Your task to perform on an android device: toggle translation in the chrome app Image 0: 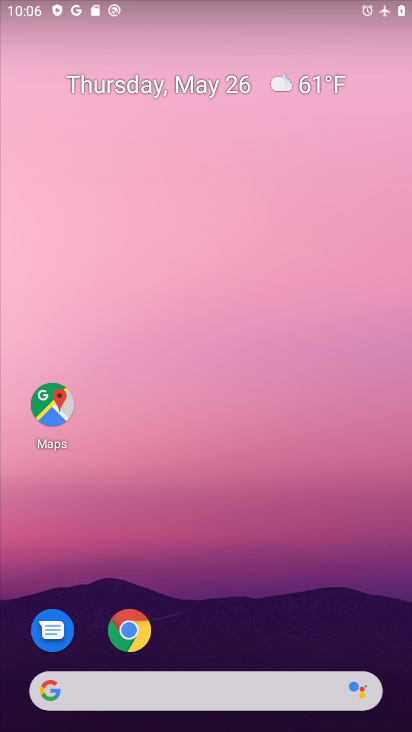
Step 0: click (142, 639)
Your task to perform on an android device: toggle translation in the chrome app Image 1: 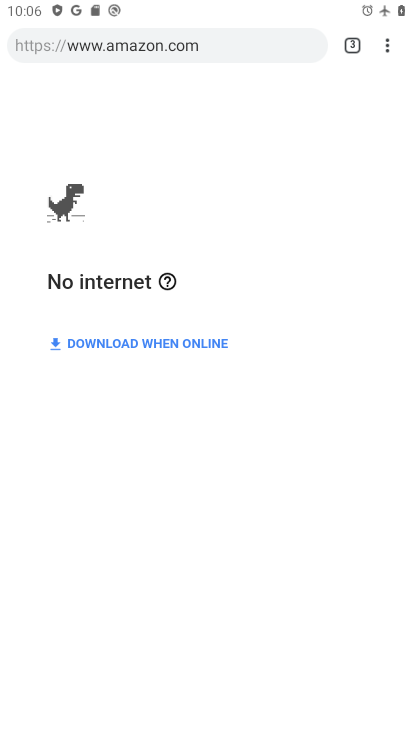
Step 1: click (391, 55)
Your task to perform on an android device: toggle translation in the chrome app Image 2: 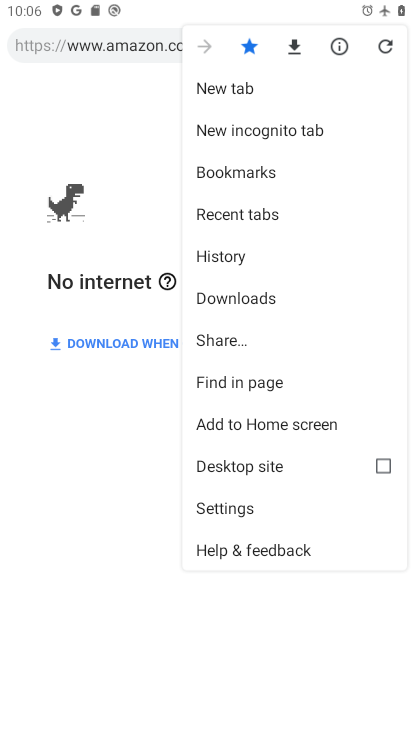
Step 2: click (255, 504)
Your task to perform on an android device: toggle translation in the chrome app Image 3: 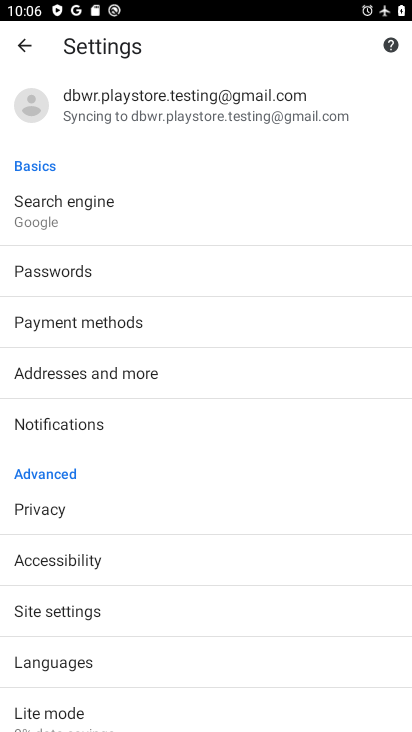
Step 3: click (82, 655)
Your task to perform on an android device: toggle translation in the chrome app Image 4: 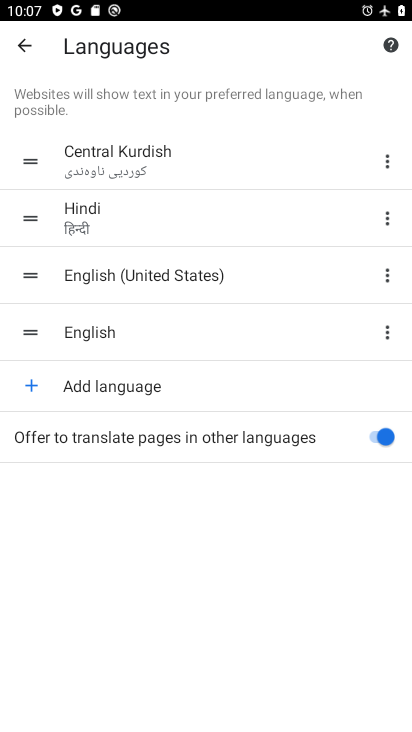
Step 4: click (376, 429)
Your task to perform on an android device: toggle translation in the chrome app Image 5: 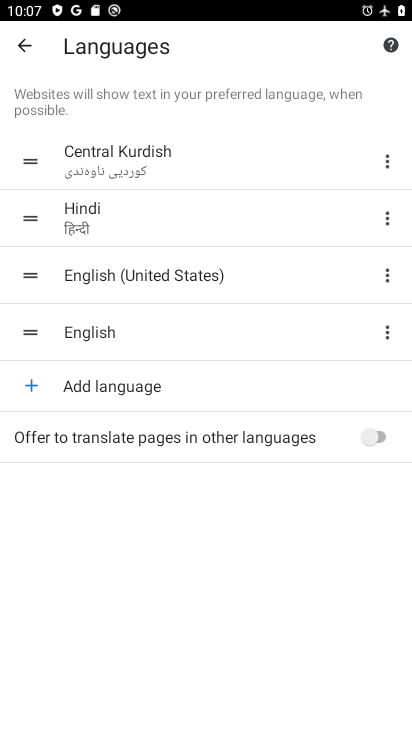
Step 5: task complete